Your task to perform on an android device: open a bookmark in the chrome app Image 0: 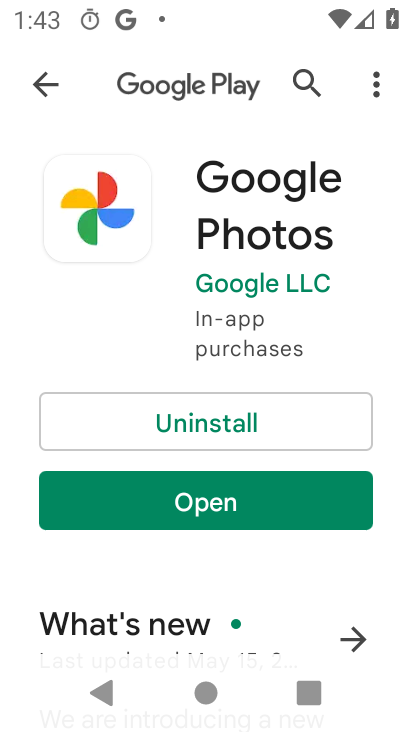
Step 0: press home button
Your task to perform on an android device: open a bookmark in the chrome app Image 1: 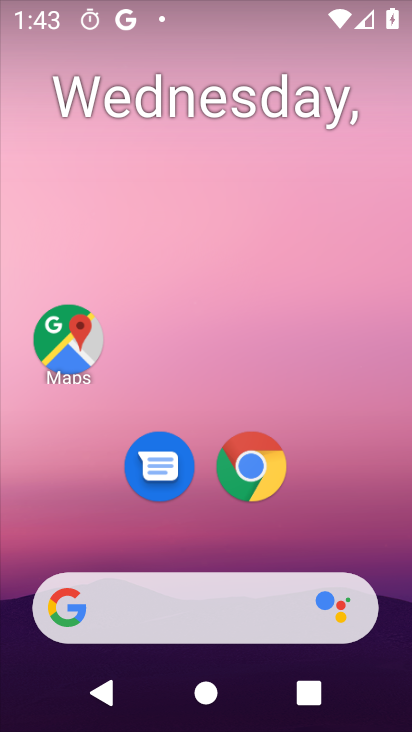
Step 1: click (260, 480)
Your task to perform on an android device: open a bookmark in the chrome app Image 2: 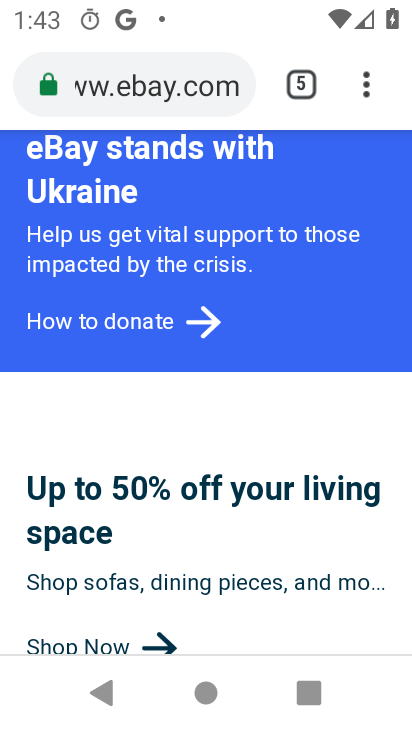
Step 2: click (372, 86)
Your task to perform on an android device: open a bookmark in the chrome app Image 3: 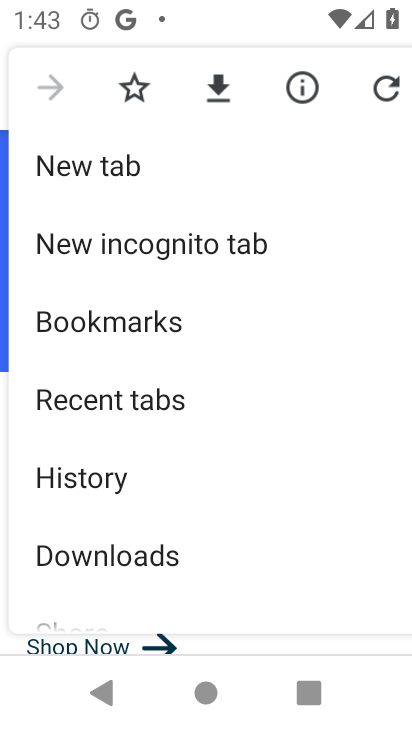
Step 3: click (198, 312)
Your task to perform on an android device: open a bookmark in the chrome app Image 4: 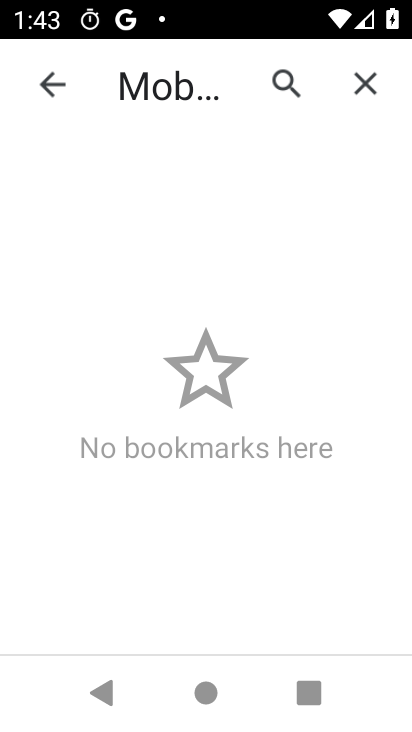
Step 4: task complete